Your task to perform on an android device: turn off translation in the chrome app Image 0: 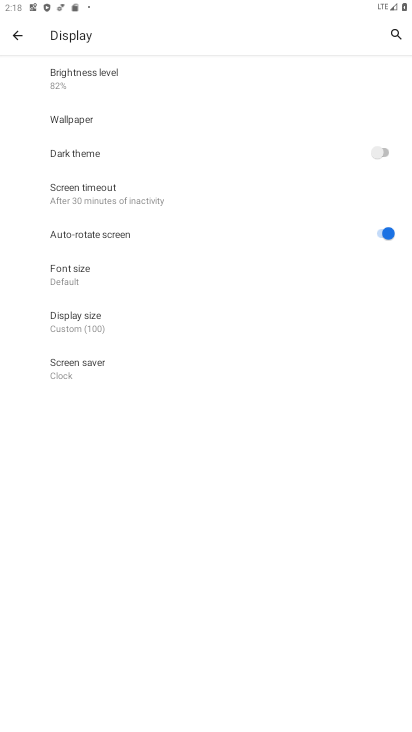
Step 0: press home button
Your task to perform on an android device: turn off translation in the chrome app Image 1: 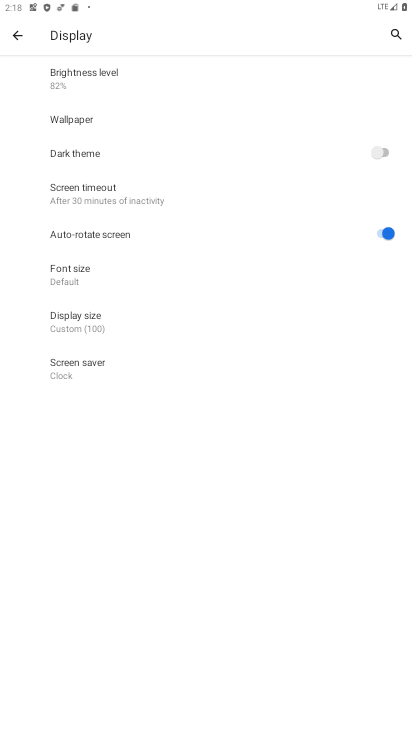
Step 1: press home button
Your task to perform on an android device: turn off translation in the chrome app Image 2: 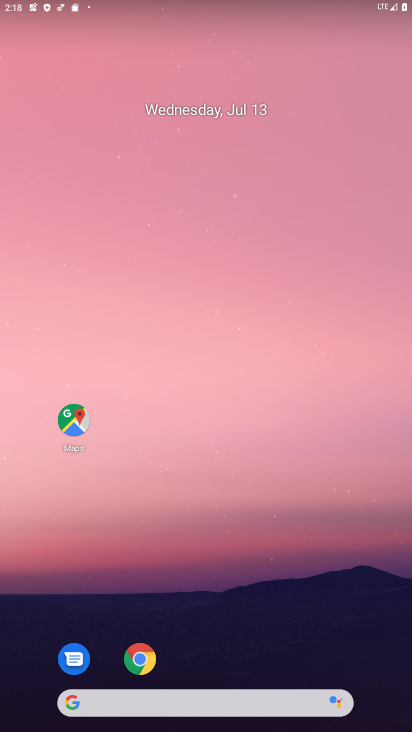
Step 2: click (138, 657)
Your task to perform on an android device: turn off translation in the chrome app Image 3: 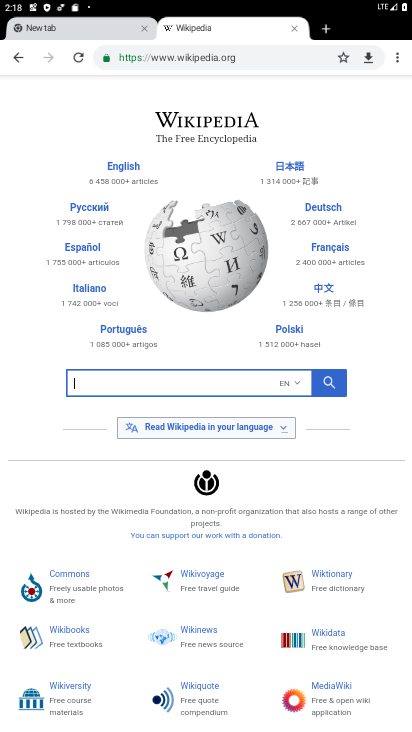
Step 3: click (398, 64)
Your task to perform on an android device: turn off translation in the chrome app Image 4: 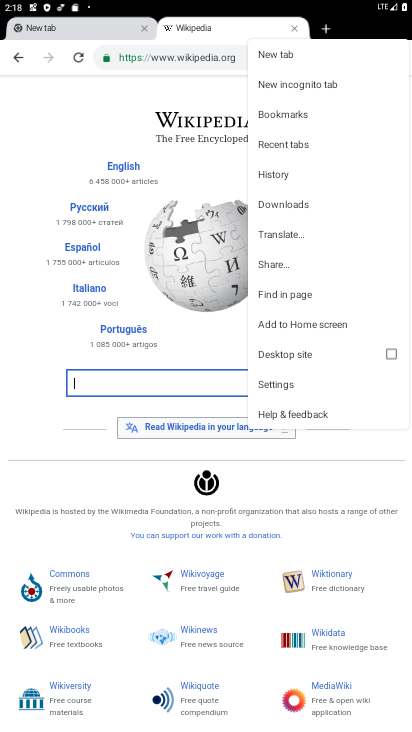
Step 4: click (278, 383)
Your task to perform on an android device: turn off translation in the chrome app Image 5: 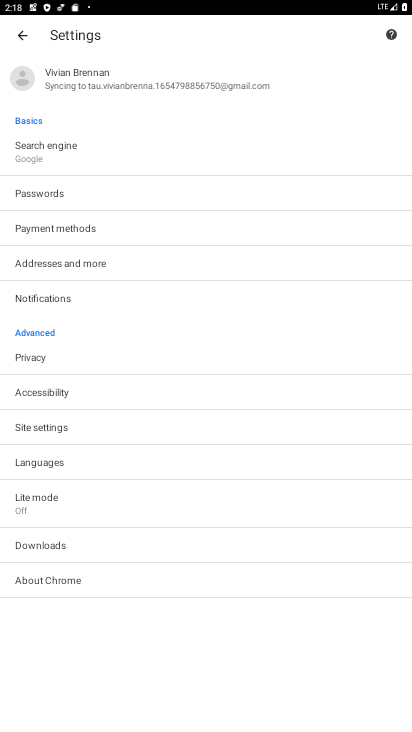
Step 5: click (45, 461)
Your task to perform on an android device: turn off translation in the chrome app Image 6: 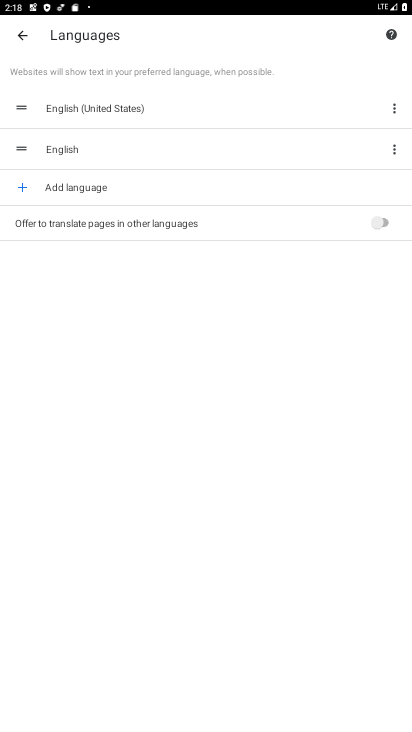
Step 6: task complete